Your task to perform on an android device: Open wifi settings Image 0: 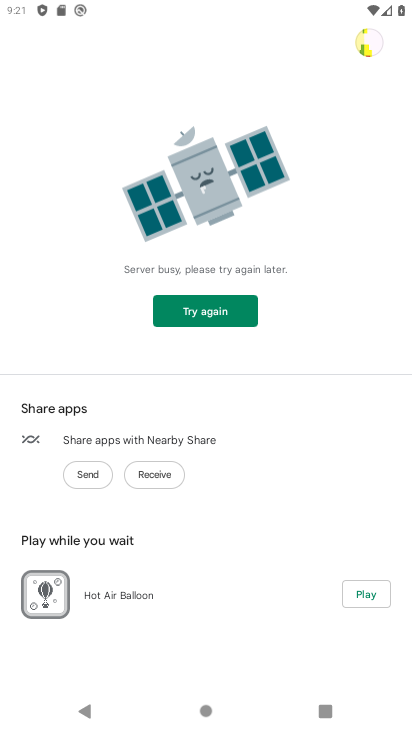
Step 0: press home button
Your task to perform on an android device: Open wifi settings Image 1: 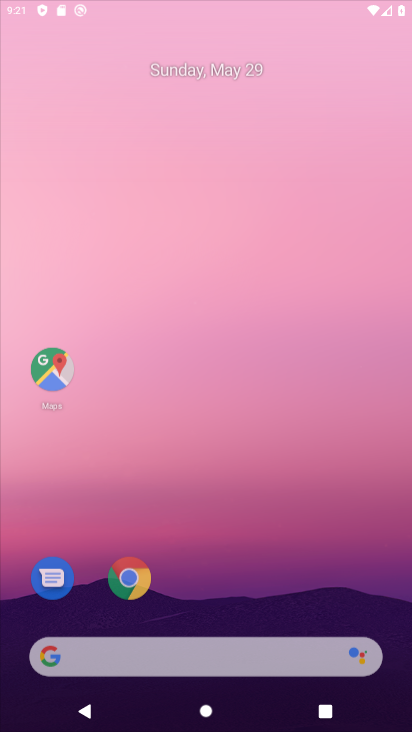
Step 1: click (4, 602)
Your task to perform on an android device: Open wifi settings Image 2: 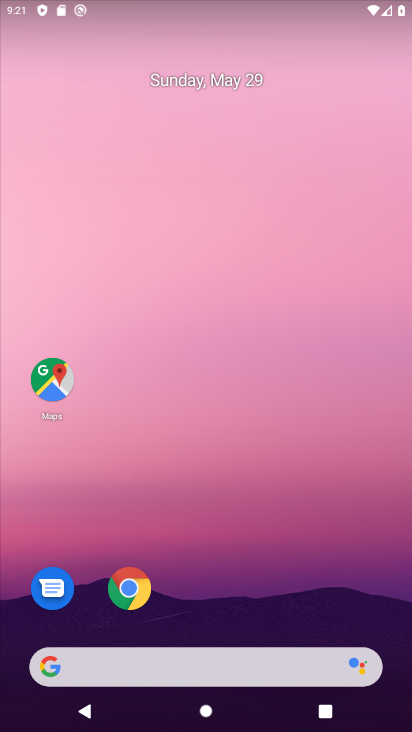
Step 2: drag from (285, 1) to (215, 463)
Your task to perform on an android device: Open wifi settings Image 3: 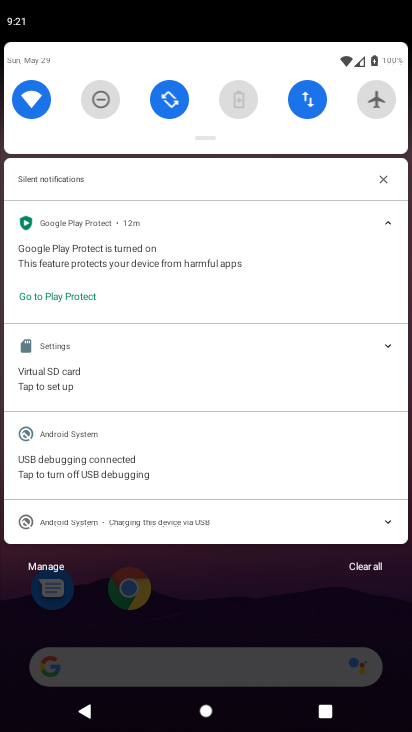
Step 3: click (35, 101)
Your task to perform on an android device: Open wifi settings Image 4: 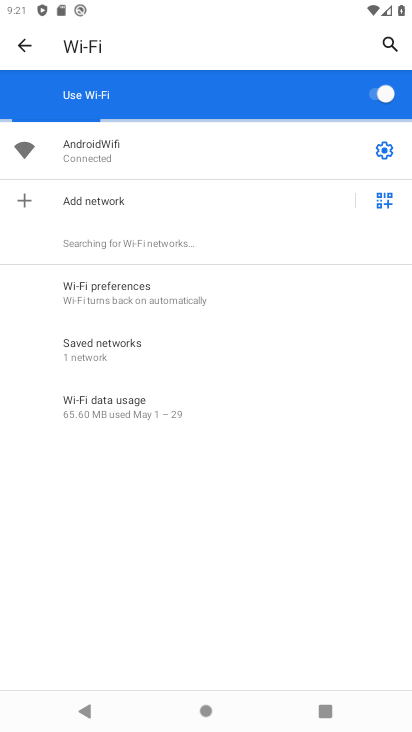
Step 4: click (374, 155)
Your task to perform on an android device: Open wifi settings Image 5: 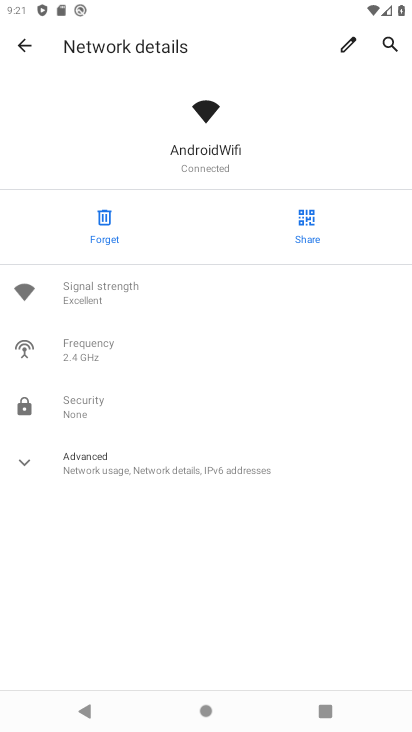
Step 5: task complete